Your task to perform on an android device: Show me productivity apps on the Play Store Image 0: 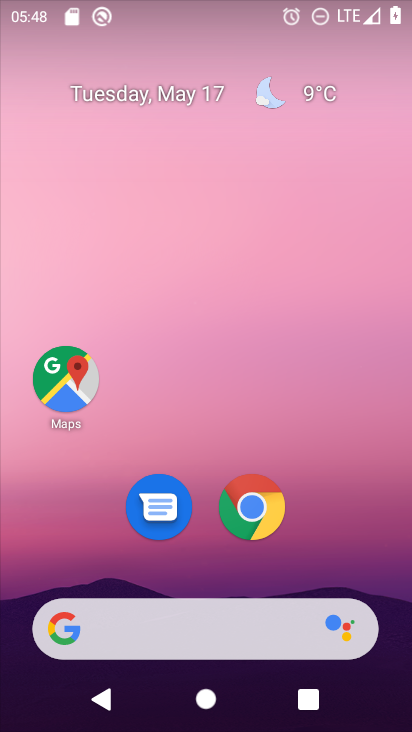
Step 0: drag from (207, 467) to (169, 39)
Your task to perform on an android device: Show me productivity apps on the Play Store Image 1: 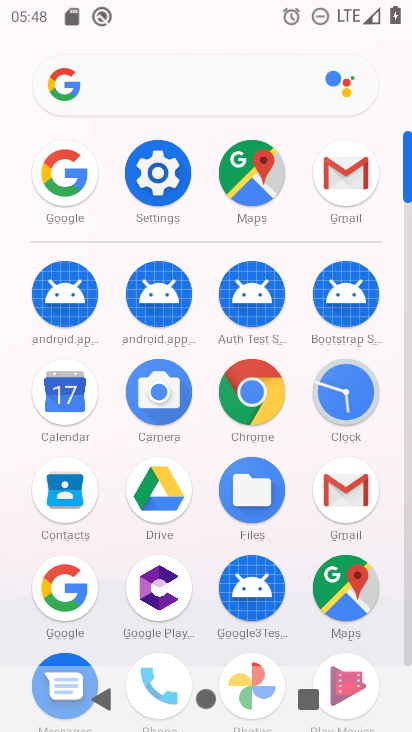
Step 1: drag from (193, 596) to (186, 219)
Your task to perform on an android device: Show me productivity apps on the Play Store Image 2: 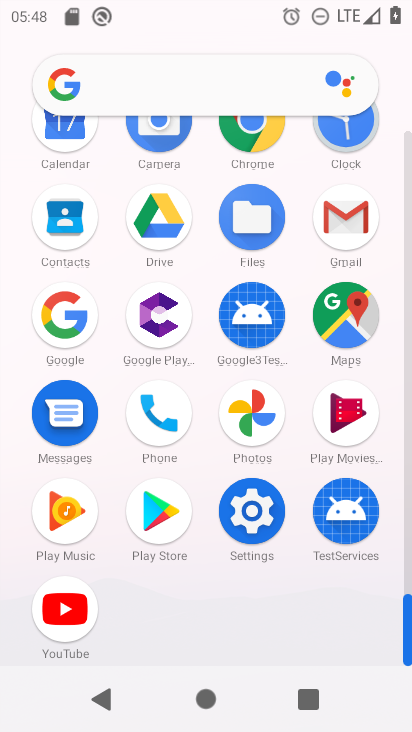
Step 2: click (161, 509)
Your task to perform on an android device: Show me productivity apps on the Play Store Image 3: 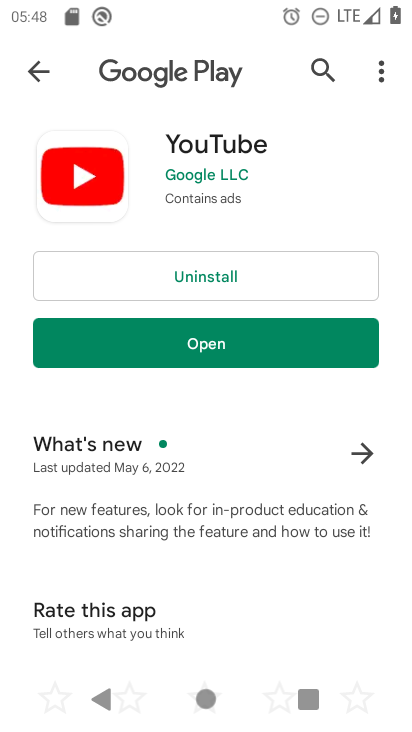
Step 3: click (24, 68)
Your task to perform on an android device: Show me productivity apps on the Play Store Image 4: 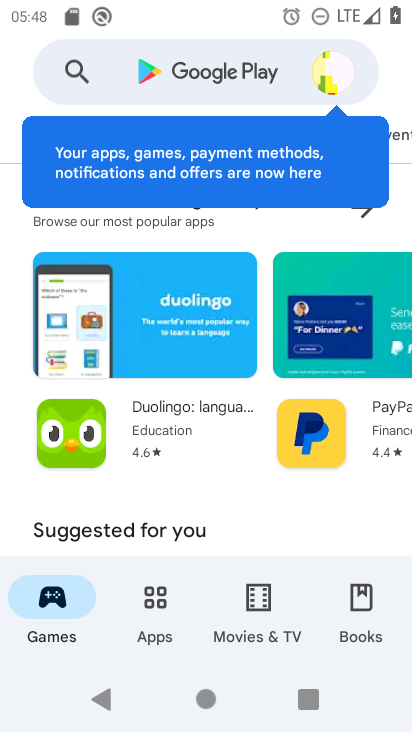
Step 4: click (163, 598)
Your task to perform on an android device: Show me productivity apps on the Play Store Image 5: 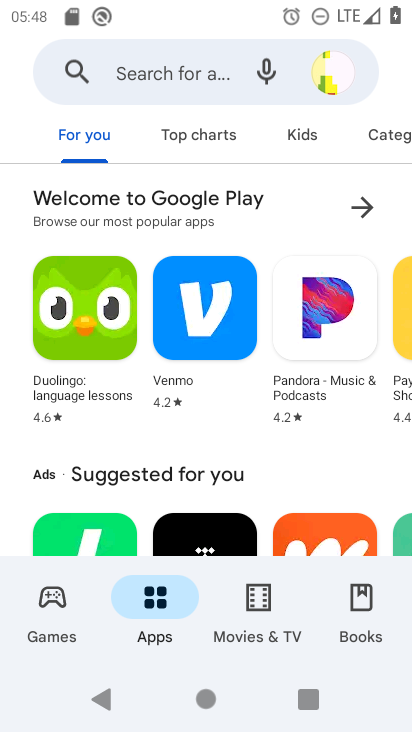
Step 5: click (213, 65)
Your task to perform on an android device: Show me productivity apps on the Play Store Image 6: 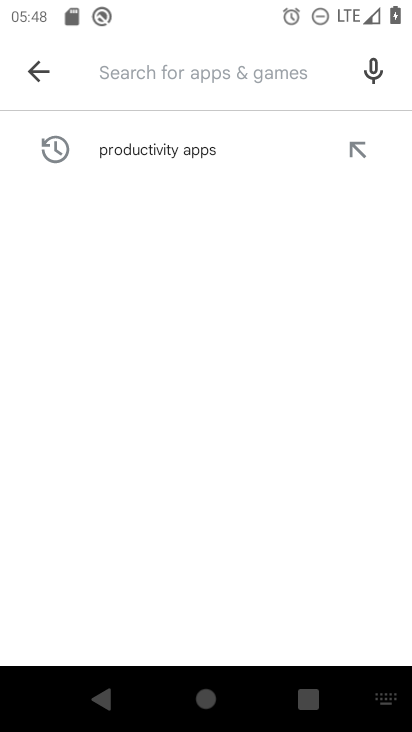
Step 6: click (169, 149)
Your task to perform on an android device: Show me productivity apps on the Play Store Image 7: 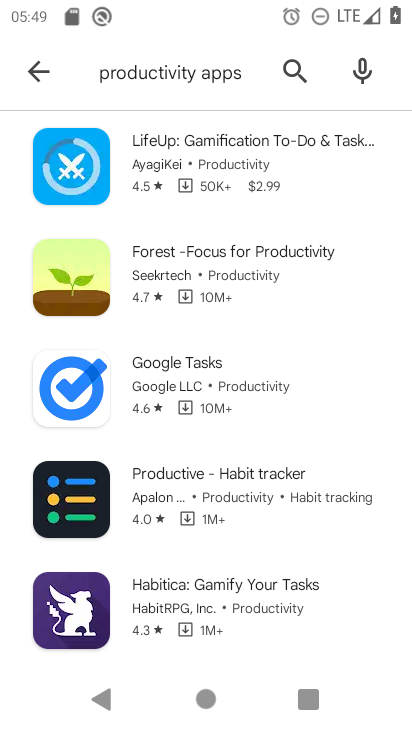
Step 7: task complete